Your task to perform on an android device: turn notification dots on Image 0: 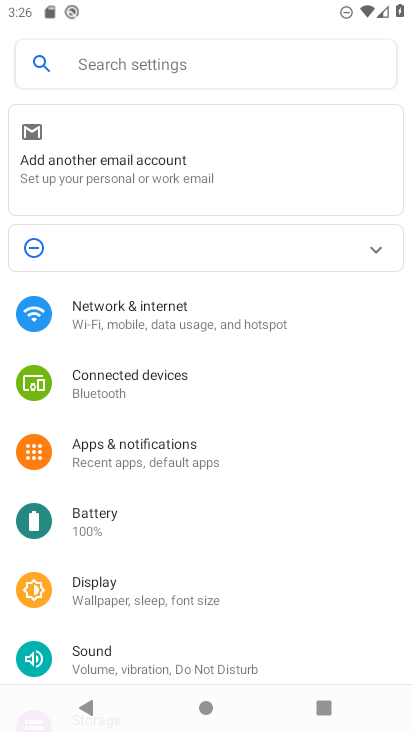
Step 0: click (105, 456)
Your task to perform on an android device: turn notification dots on Image 1: 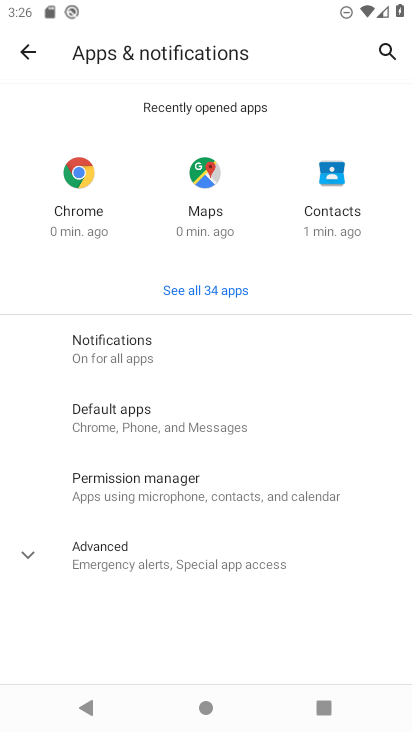
Step 1: click (110, 358)
Your task to perform on an android device: turn notification dots on Image 2: 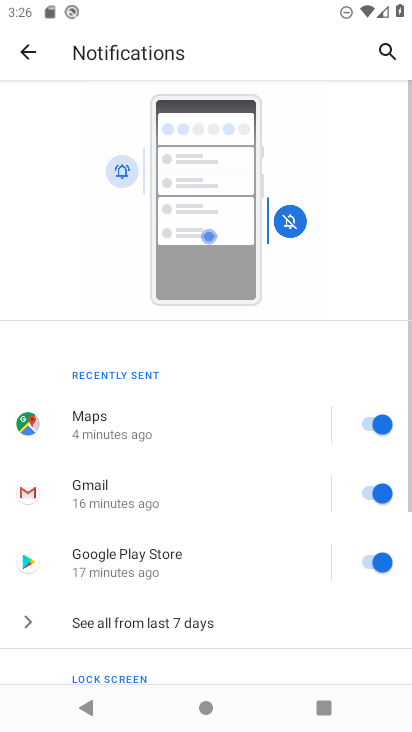
Step 2: drag from (189, 665) to (199, 213)
Your task to perform on an android device: turn notification dots on Image 3: 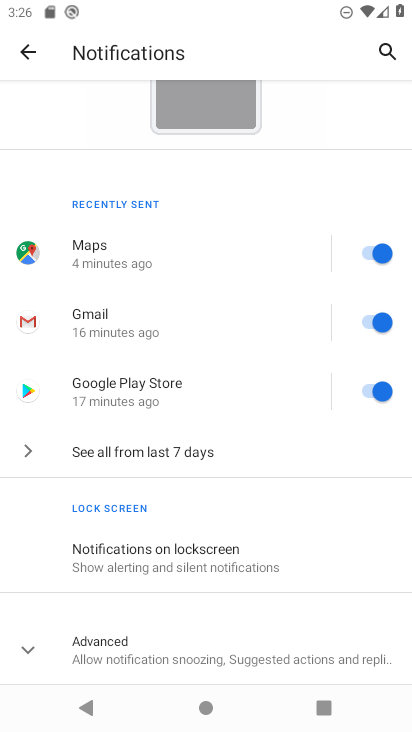
Step 3: click (142, 641)
Your task to perform on an android device: turn notification dots on Image 4: 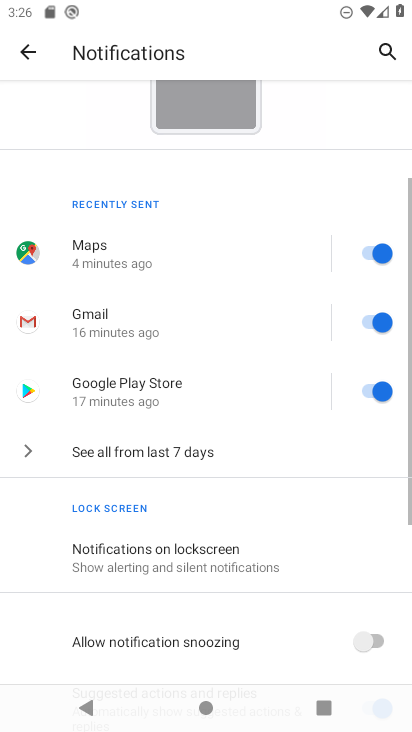
Step 4: task complete